Your task to perform on an android device: Open Youtube and go to "Your channel" Image 0: 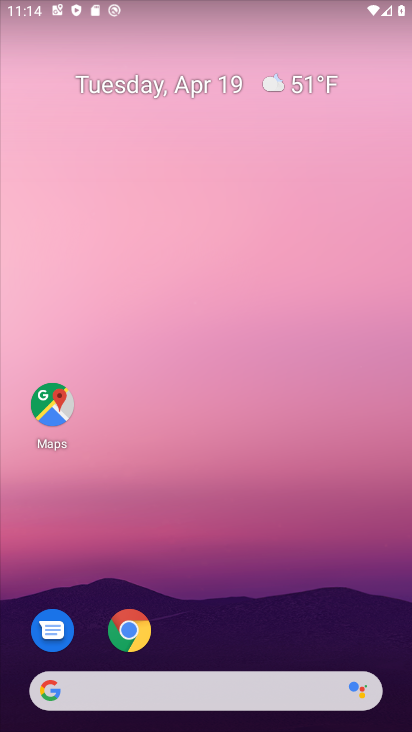
Step 0: drag from (334, 632) to (306, 124)
Your task to perform on an android device: Open Youtube and go to "Your channel" Image 1: 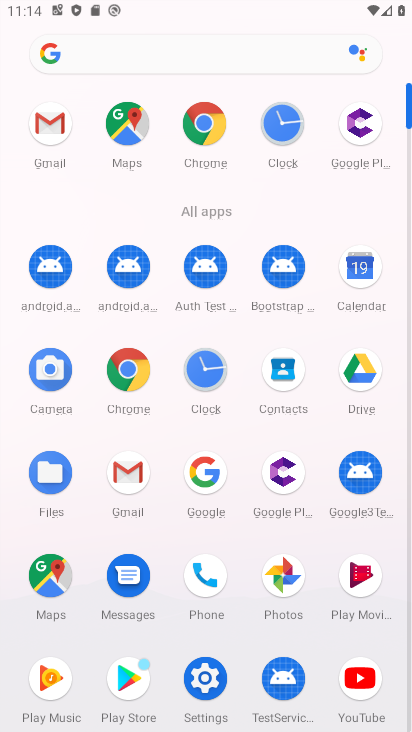
Step 1: click (369, 681)
Your task to perform on an android device: Open Youtube and go to "Your channel" Image 2: 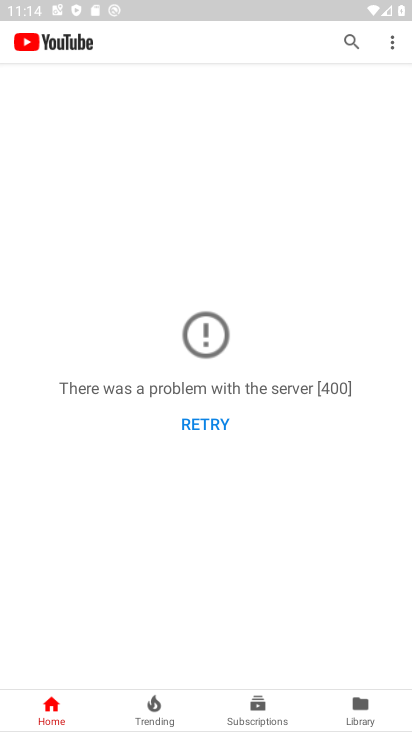
Step 2: click (212, 420)
Your task to perform on an android device: Open Youtube and go to "Your channel" Image 3: 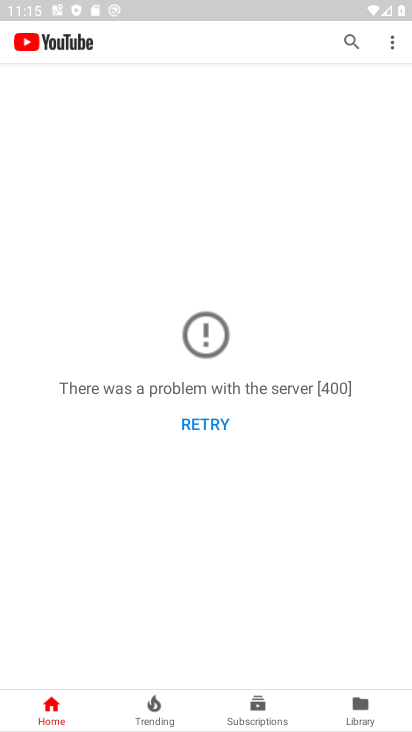
Step 3: task complete